Your task to perform on an android device: turn off wifi Image 0: 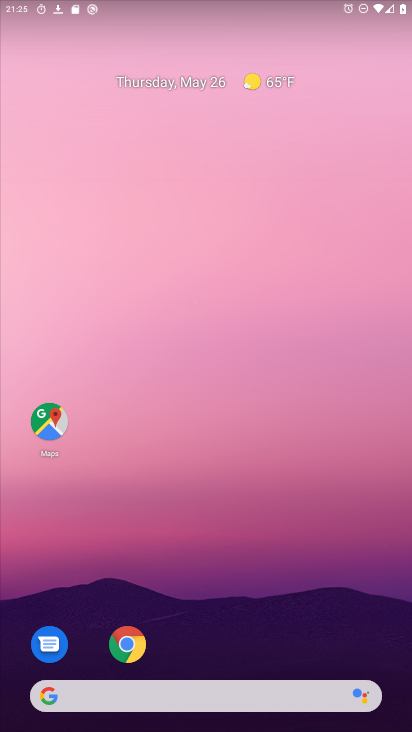
Step 0: drag from (179, 672) to (186, 260)
Your task to perform on an android device: turn off wifi Image 1: 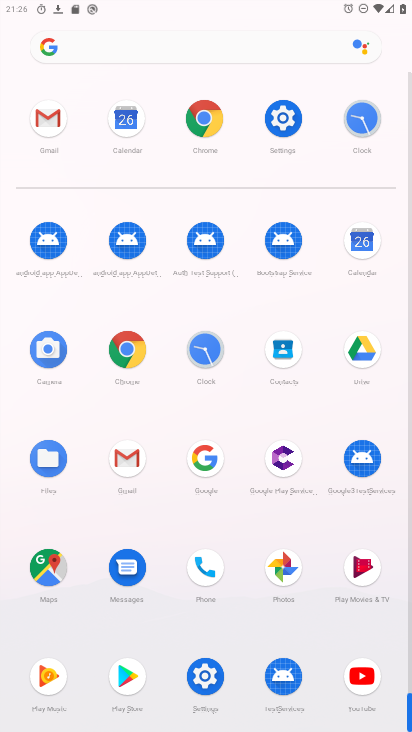
Step 1: click (277, 125)
Your task to perform on an android device: turn off wifi Image 2: 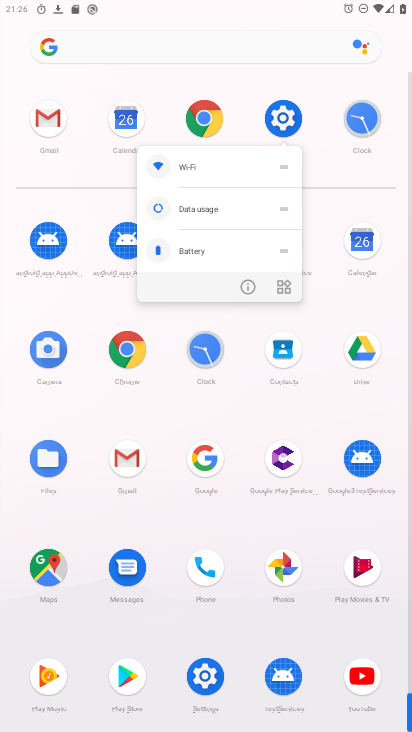
Step 2: click (201, 169)
Your task to perform on an android device: turn off wifi Image 3: 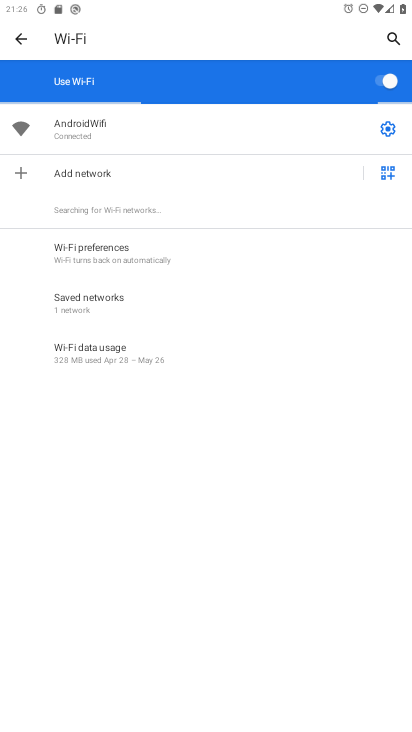
Step 3: click (384, 71)
Your task to perform on an android device: turn off wifi Image 4: 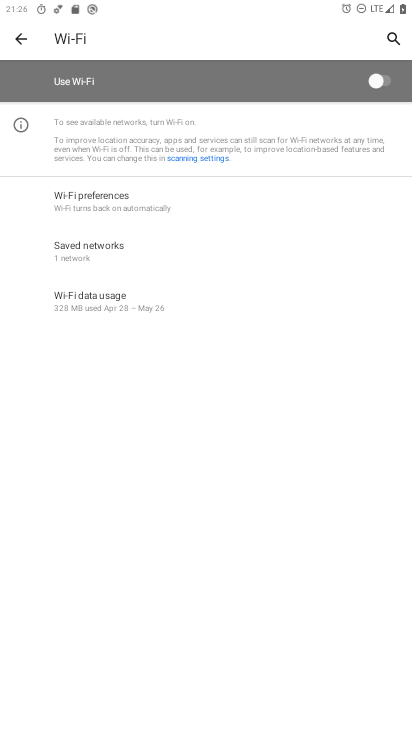
Step 4: task complete